Your task to perform on an android device: Go to sound settings Image 0: 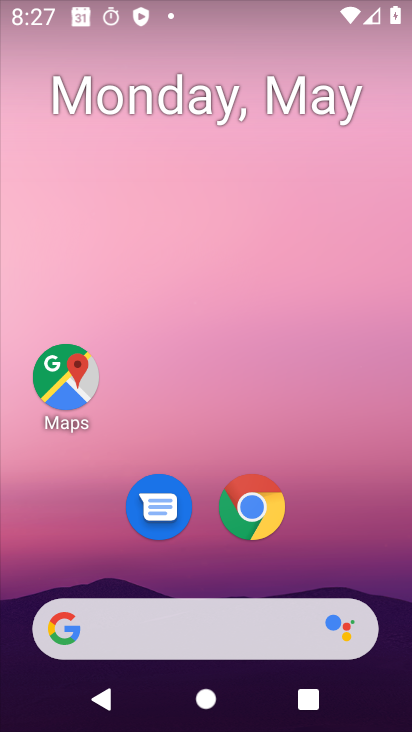
Step 0: drag from (215, 555) to (206, 5)
Your task to perform on an android device: Go to sound settings Image 1: 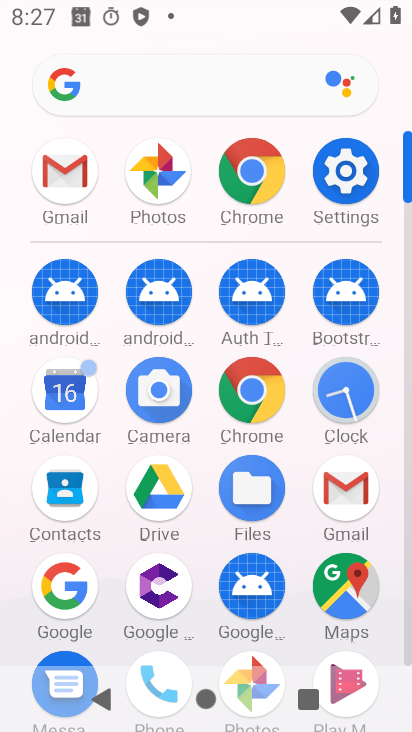
Step 1: click (361, 182)
Your task to perform on an android device: Go to sound settings Image 2: 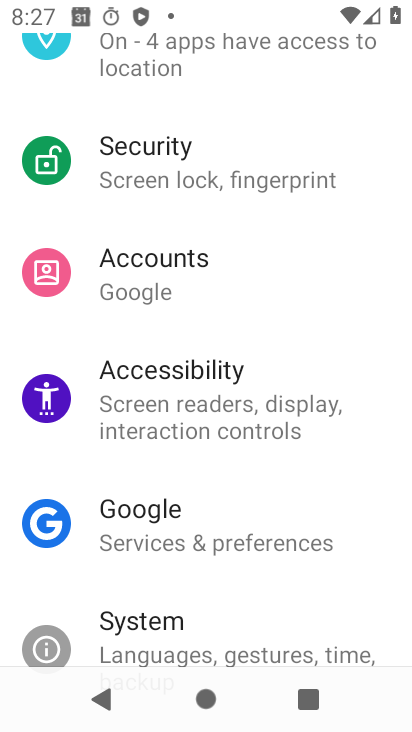
Step 2: drag from (192, 217) to (199, 605)
Your task to perform on an android device: Go to sound settings Image 3: 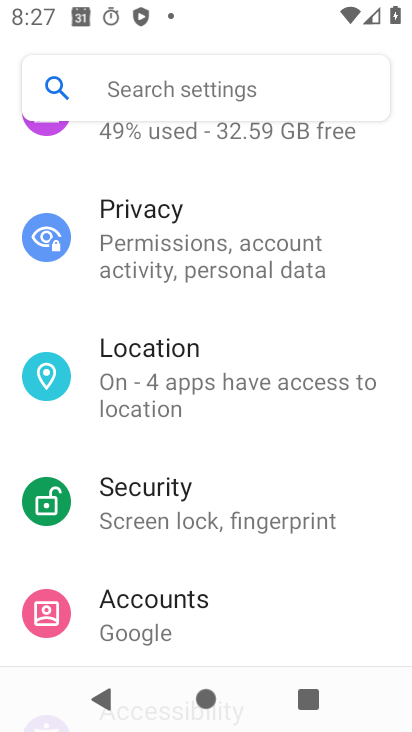
Step 3: drag from (266, 339) to (264, 686)
Your task to perform on an android device: Go to sound settings Image 4: 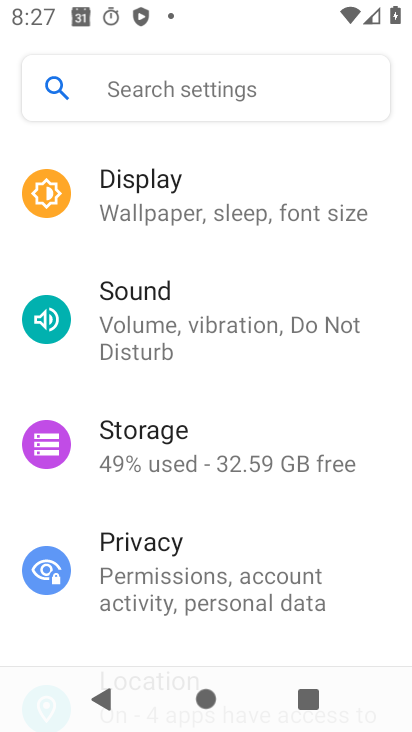
Step 4: click (193, 328)
Your task to perform on an android device: Go to sound settings Image 5: 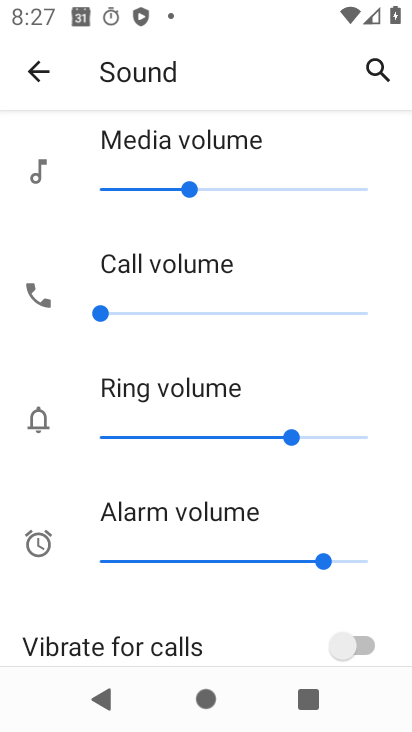
Step 5: task complete